Your task to perform on an android device: stop showing notifications on the lock screen Image 0: 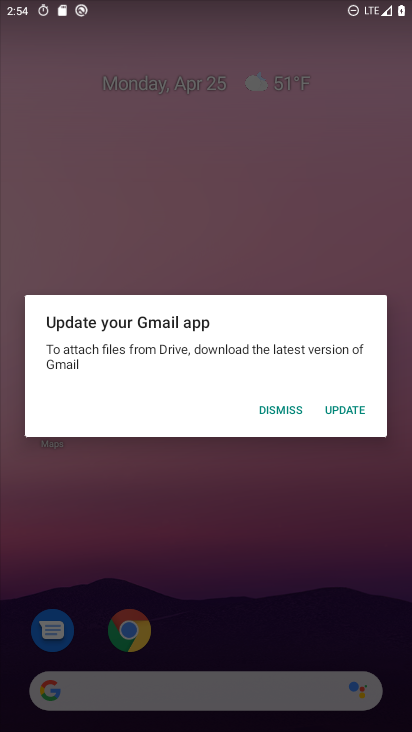
Step 0: click (269, 411)
Your task to perform on an android device: stop showing notifications on the lock screen Image 1: 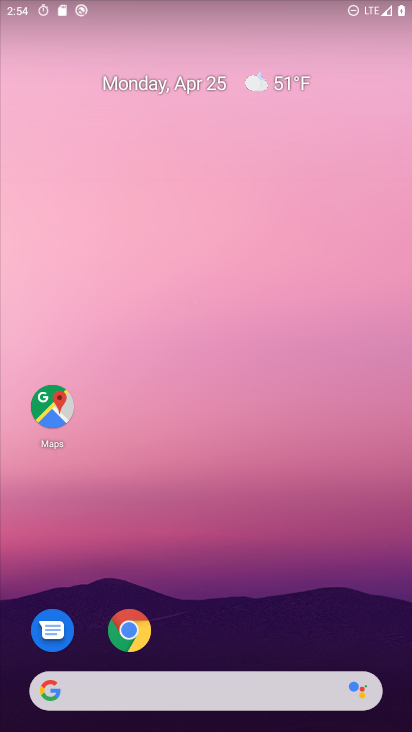
Step 1: press home button
Your task to perform on an android device: stop showing notifications on the lock screen Image 2: 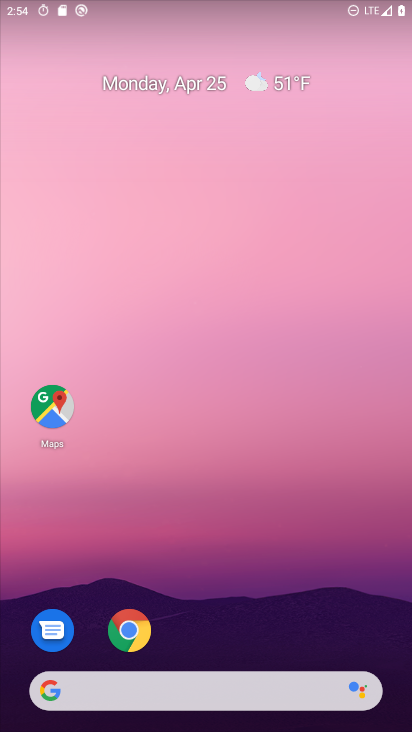
Step 2: drag from (251, 598) to (251, 173)
Your task to perform on an android device: stop showing notifications on the lock screen Image 3: 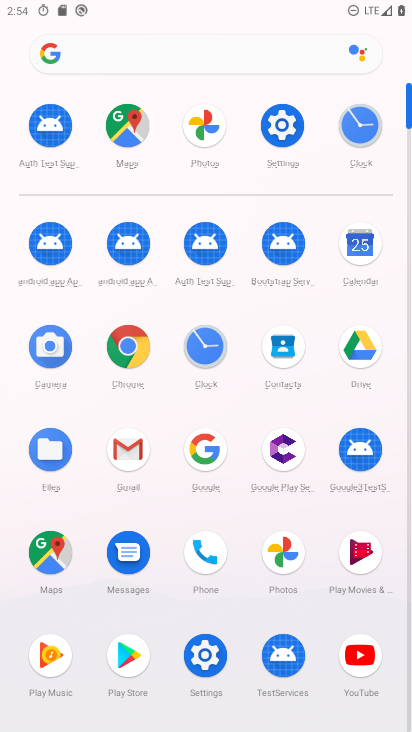
Step 3: click (288, 131)
Your task to perform on an android device: stop showing notifications on the lock screen Image 4: 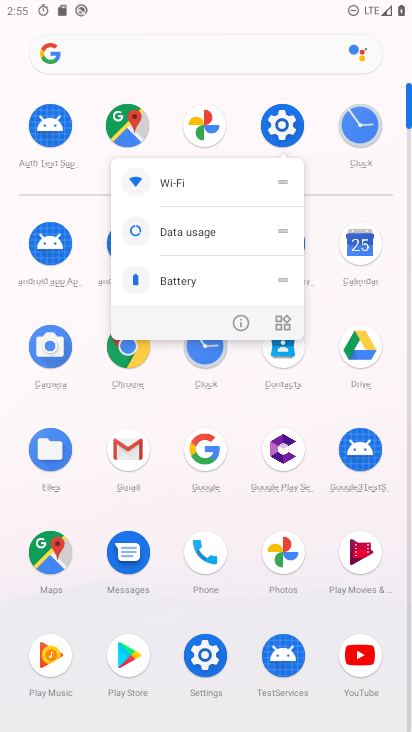
Step 4: click (240, 322)
Your task to perform on an android device: stop showing notifications on the lock screen Image 5: 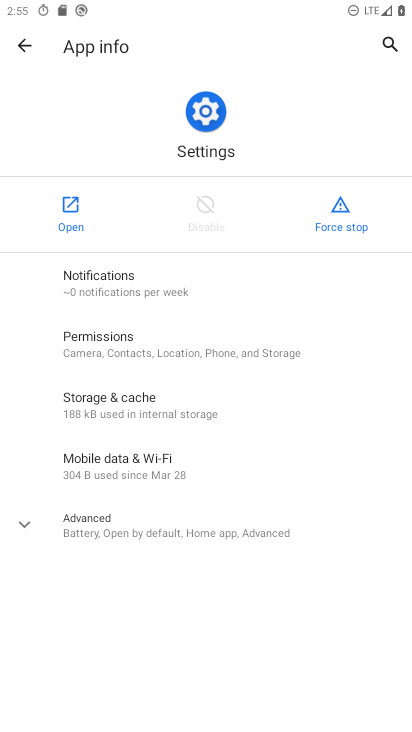
Step 5: click (82, 216)
Your task to perform on an android device: stop showing notifications on the lock screen Image 6: 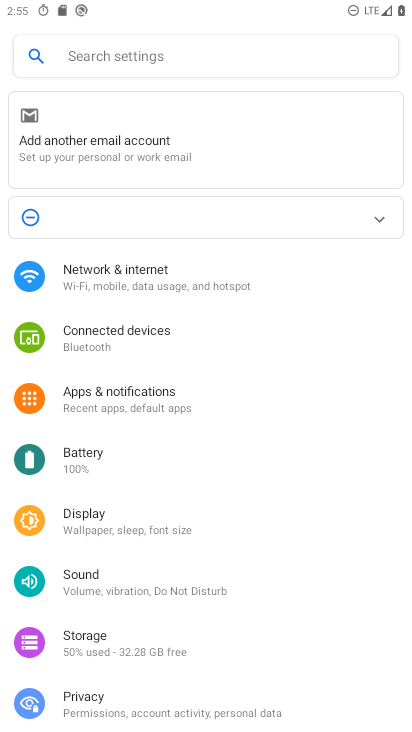
Step 6: click (139, 384)
Your task to perform on an android device: stop showing notifications on the lock screen Image 7: 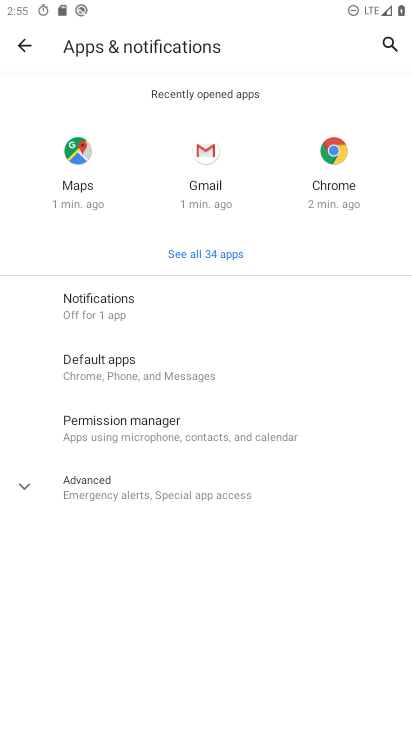
Step 7: click (121, 299)
Your task to perform on an android device: stop showing notifications on the lock screen Image 8: 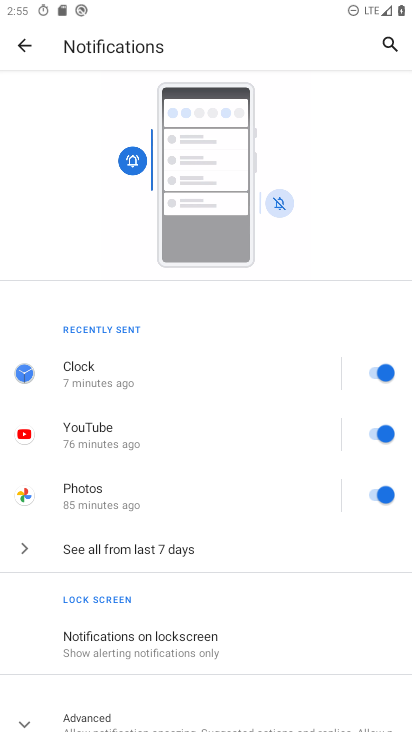
Step 8: drag from (174, 672) to (260, 86)
Your task to perform on an android device: stop showing notifications on the lock screen Image 9: 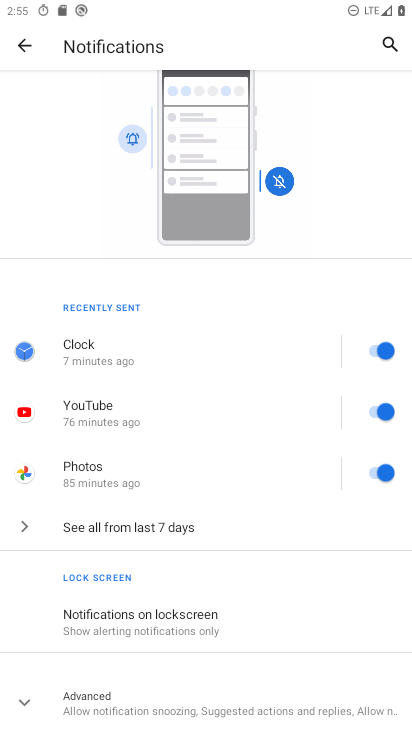
Step 9: drag from (148, 698) to (241, 259)
Your task to perform on an android device: stop showing notifications on the lock screen Image 10: 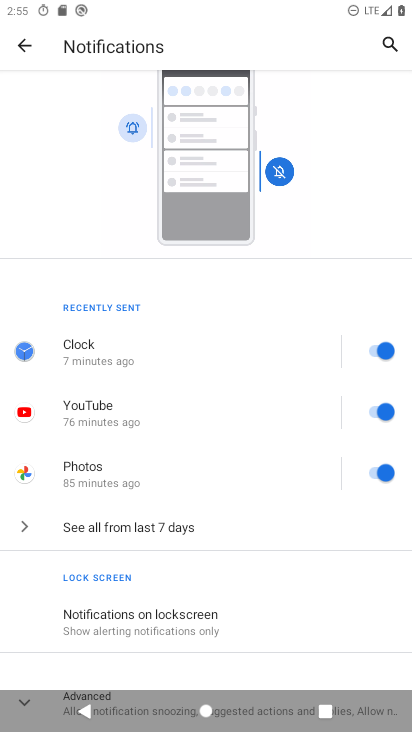
Step 10: click (146, 637)
Your task to perform on an android device: stop showing notifications on the lock screen Image 11: 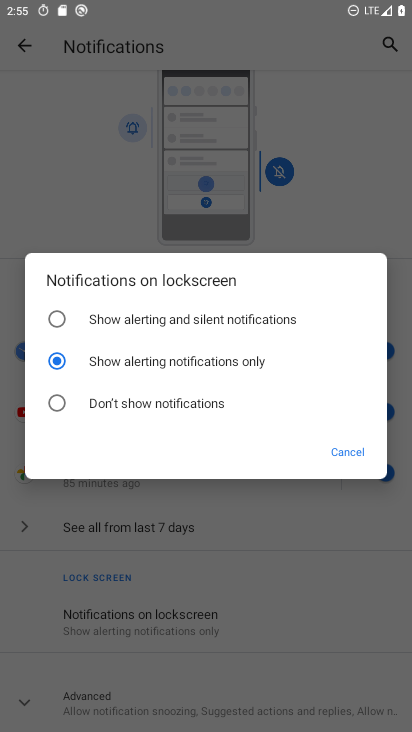
Step 11: task complete